Your task to perform on an android device: install app "Google Play services" Image 0: 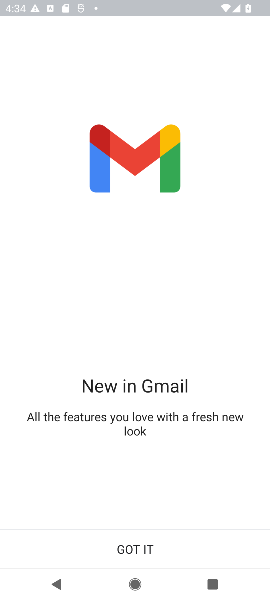
Step 0: press home button
Your task to perform on an android device: install app "Google Play services" Image 1: 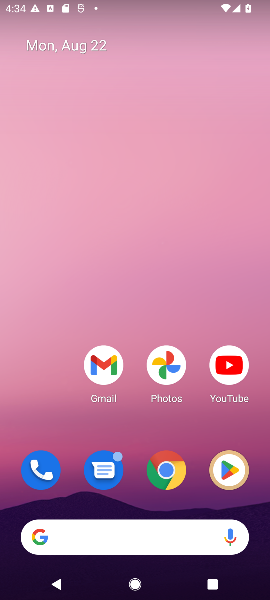
Step 1: drag from (138, 484) to (141, 98)
Your task to perform on an android device: install app "Google Play services" Image 2: 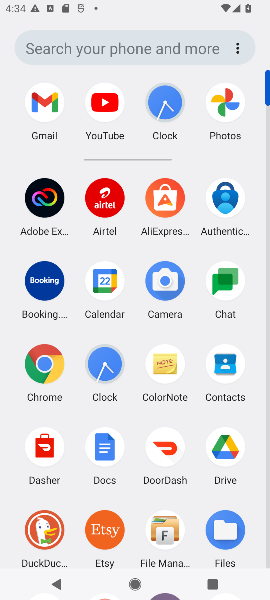
Step 2: drag from (76, 519) to (89, 215)
Your task to perform on an android device: install app "Google Play services" Image 3: 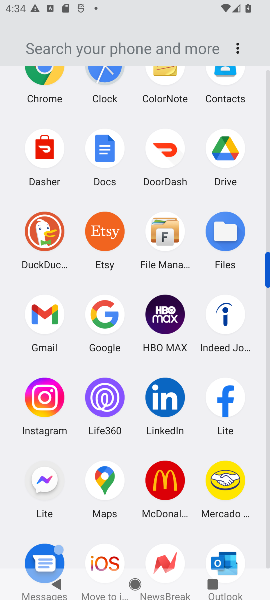
Step 3: drag from (96, 494) to (132, 177)
Your task to perform on an android device: install app "Google Play services" Image 4: 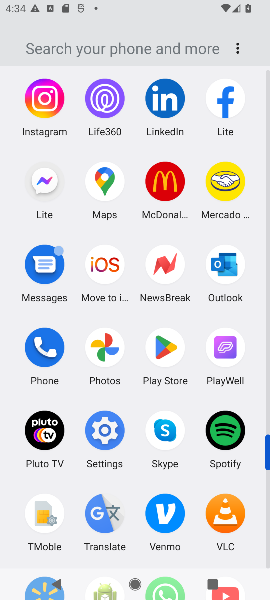
Step 4: click (161, 347)
Your task to perform on an android device: install app "Google Play services" Image 5: 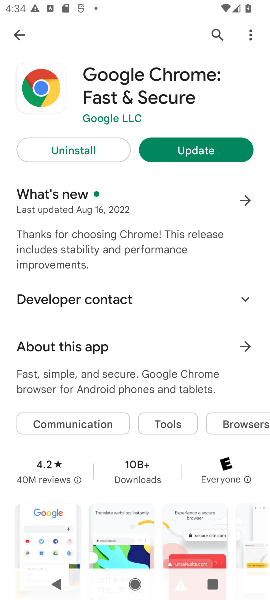
Step 5: click (22, 46)
Your task to perform on an android device: install app "Google Play services" Image 6: 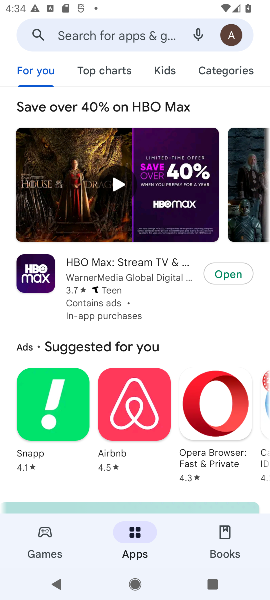
Step 6: click (88, 31)
Your task to perform on an android device: install app "Google Play services" Image 7: 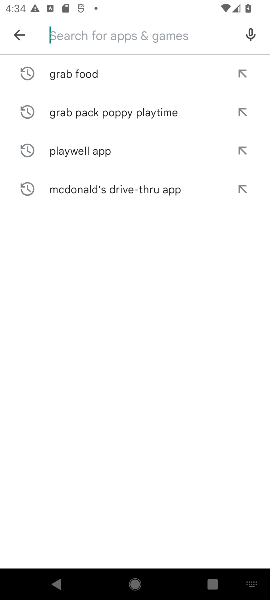
Step 7: type "Google Play services "
Your task to perform on an android device: install app "Google Play services" Image 8: 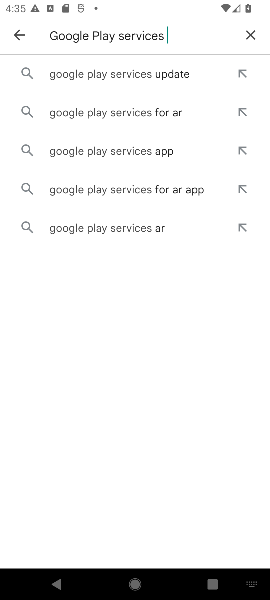
Step 8: click (152, 76)
Your task to perform on an android device: install app "Google Play services" Image 9: 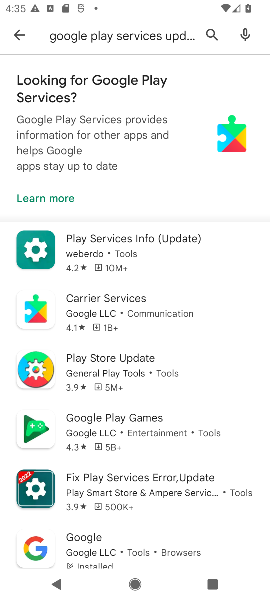
Step 9: click (102, 241)
Your task to perform on an android device: install app "Google Play services" Image 10: 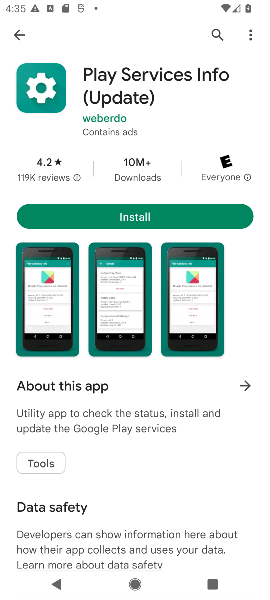
Step 10: click (162, 223)
Your task to perform on an android device: install app "Google Play services" Image 11: 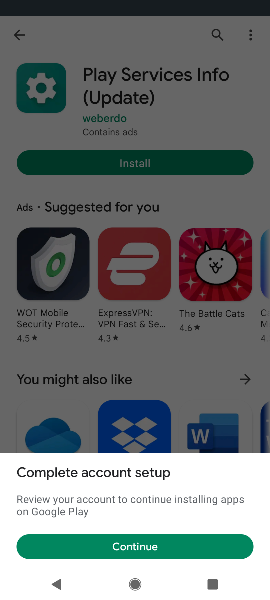
Step 11: task complete